Your task to perform on an android device: open app "McDonald's" (install if not already installed) Image 0: 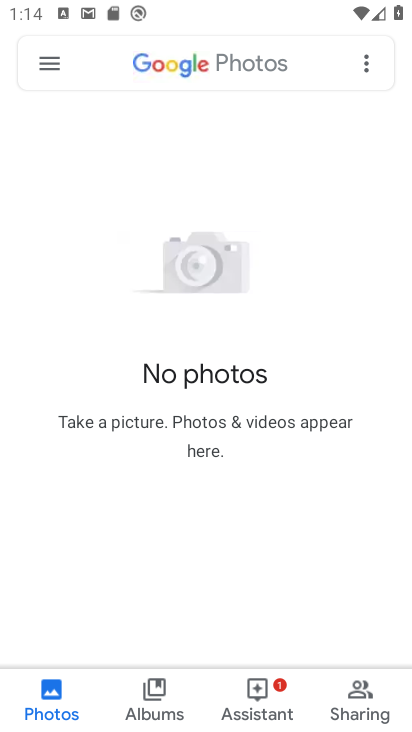
Step 0: press home button
Your task to perform on an android device: open app "McDonald's" (install if not already installed) Image 1: 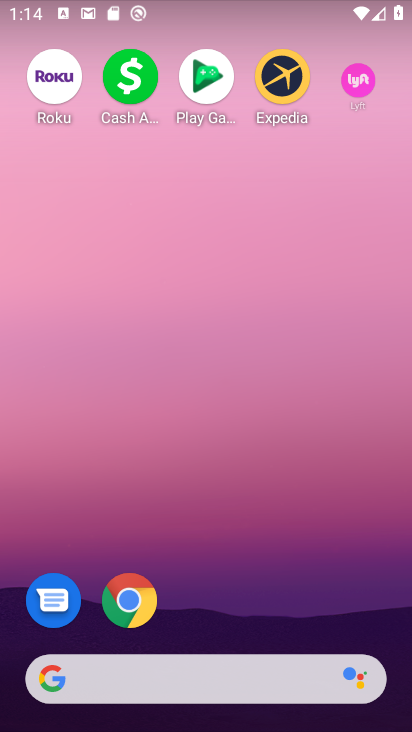
Step 1: drag from (282, 625) to (269, 136)
Your task to perform on an android device: open app "McDonald's" (install if not already installed) Image 2: 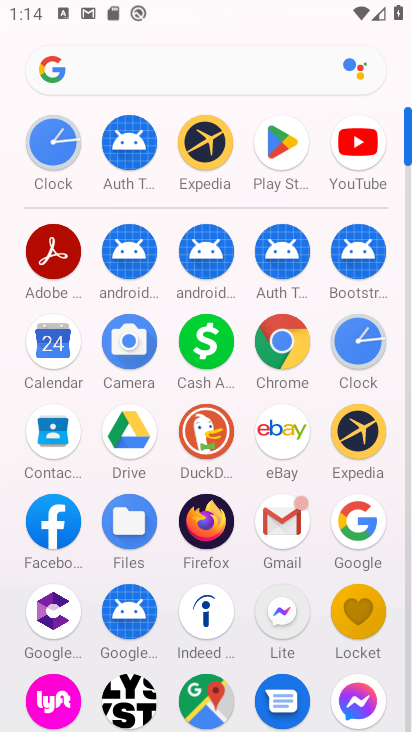
Step 2: click (271, 136)
Your task to perform on an android device: open app "McDonald's" (install if not already installed) Image 3: 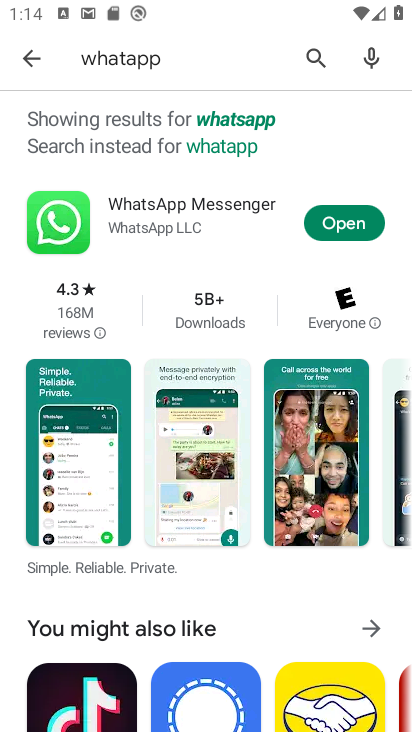
Step 3: click (324, 68)
Your task to perform on an android device: open app "McDonald's" (install if not already installed) Image 4: 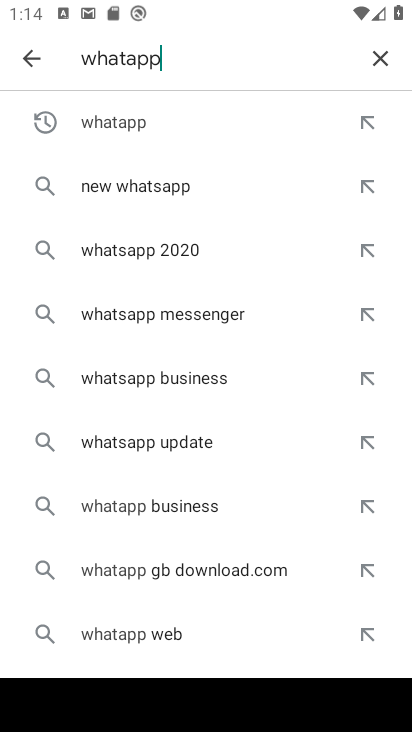
Step 4: click (381, 56)
Your task to perform on an android device: open app "McDonald's" (install if not already installed) Image 5: 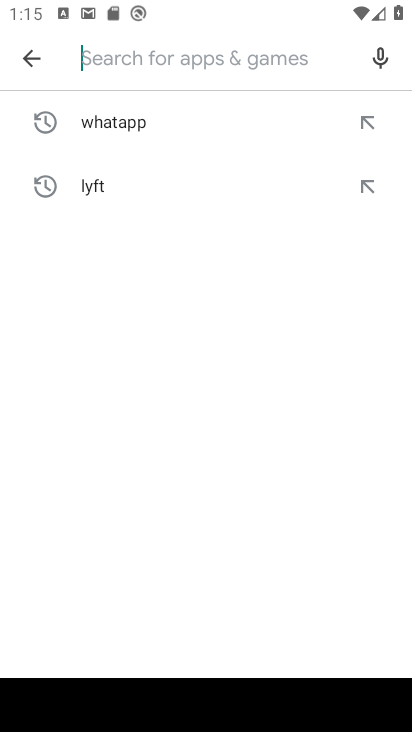
Step 5: type "mcdoland"
Your task to perform on an android device: open app "McDonald's" (install if not already installed) Image 6: 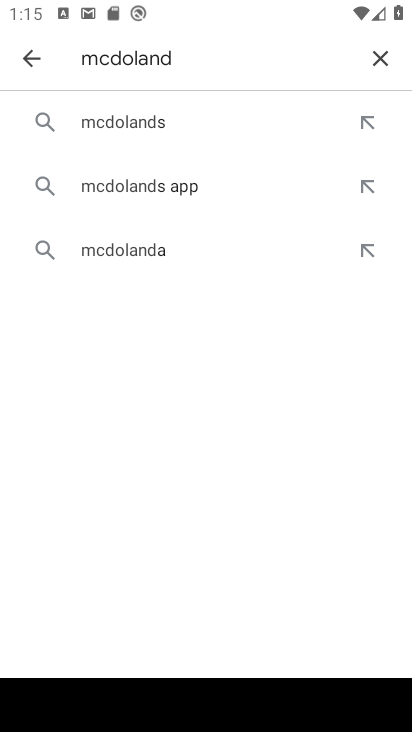
Step 6: click (102, 136)
Your task to perform on an android device: open app "McDonald's" (install if not already installed) Image 7: 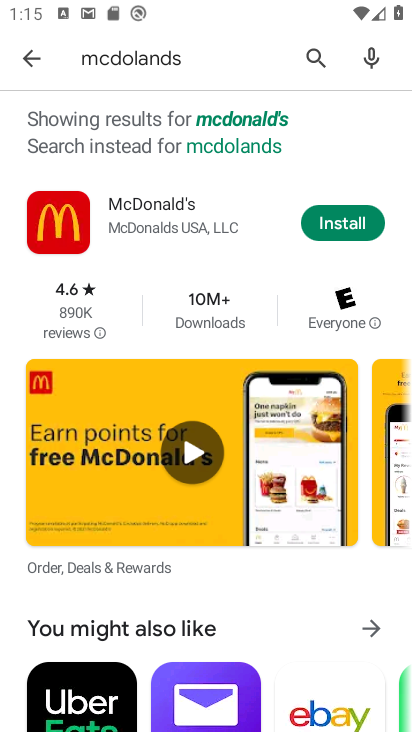
Step 7: click (352, 238)
Your task to perform on an android device: open app "McDonald's" (install if not already installed) Image 8: 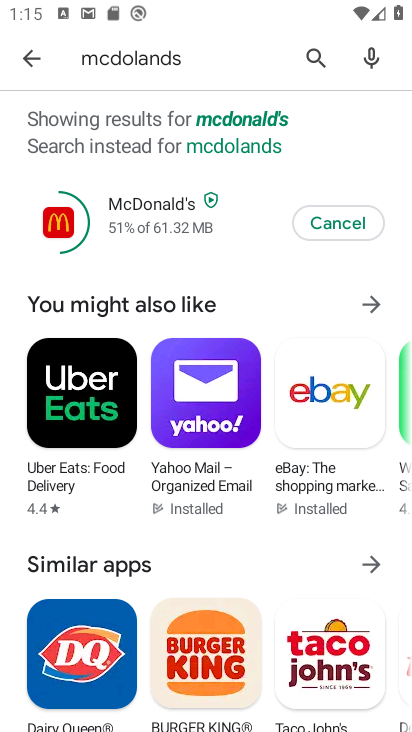
Step 8: task complete